Your task to perform on an android device: turn off airplane mode Image 0: 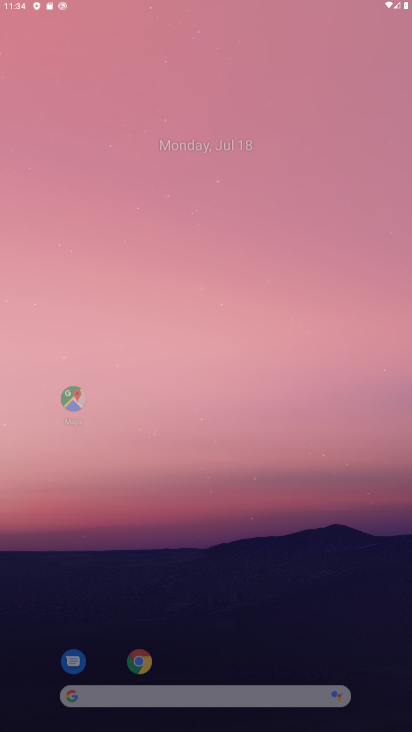
Step 0: click (191, 62)
Your task to perform on an android device: turn off airplane mode Image 1: 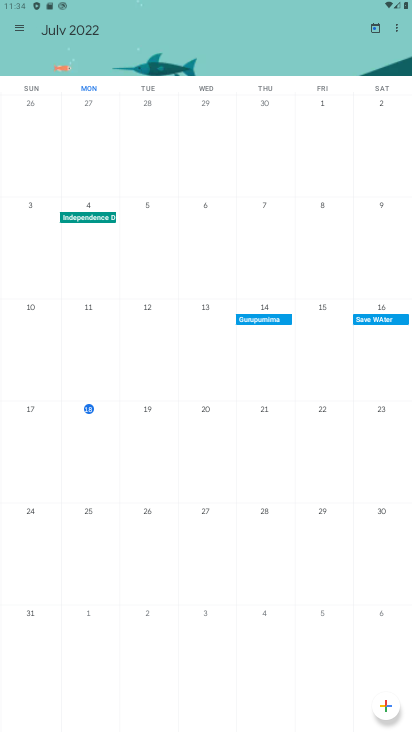
Step 1: task complete